Your task to perform on an android device: open the mobile data screen to see how much data has been used Image 0: 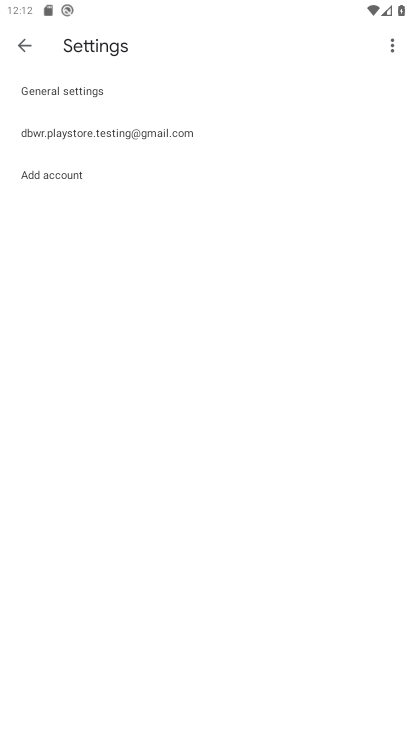
Step 0: press home button
Your task to perform on an android device: open the mobile data screen to see how much data has been used Image 1: 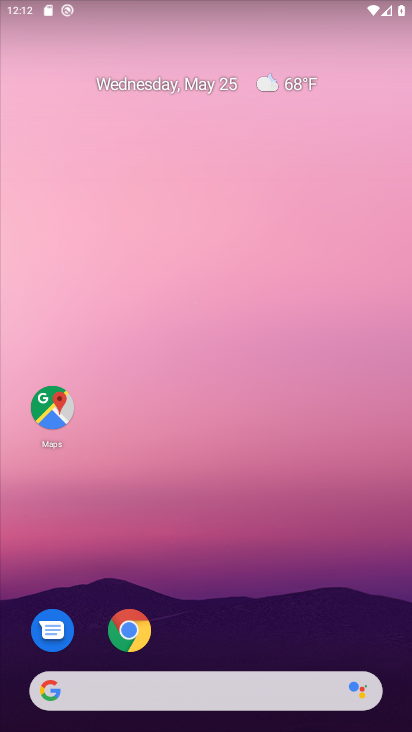
Step 1: drag from (235, 644) to (236, 212)
Your task to perform on an android device: open the mobile data screen to see how much data has been used Image 2: 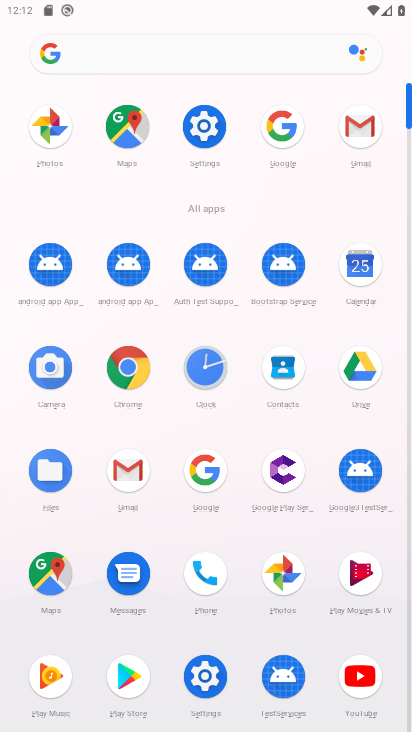
Step 2: click (198, 151)
Your task to perform on an android device: open the mobile data screen to see how much data has been used Image 3: 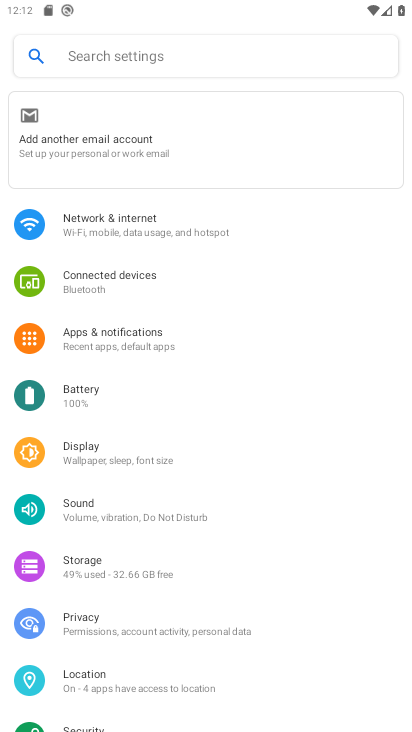
Step 3: click (170, 227)
Your task to perform on an android device: open the mobile data screen to see how much data has been used Image 4: 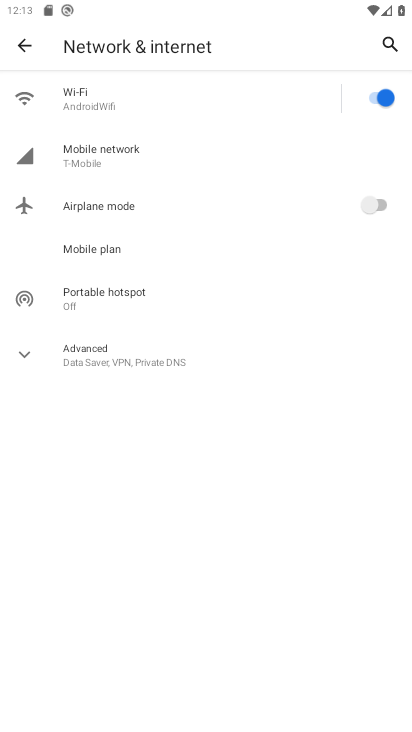
Step 4: click (170, 158)
Your task to perform on an android device: open the mobile data screen to see how much data has been used Image 5: 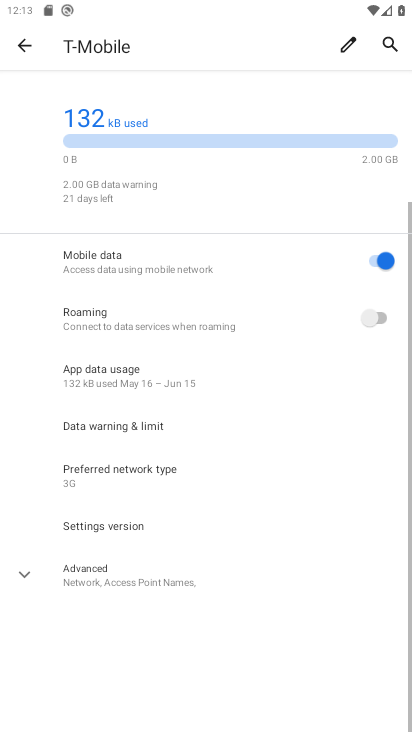
Step 5: click (170, 158)
Your task to perform on an android device: open the mobile data screen to see how much data has been used Image 6: 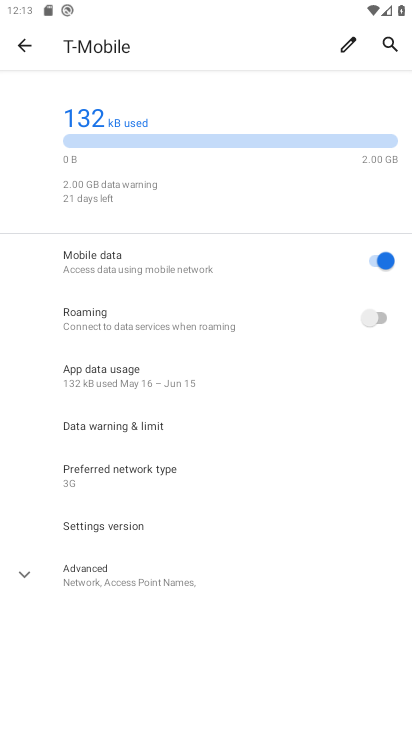
Step 6: click (217, 133)
Your task to perform on an android device: open the mobile data screen to see how much data has been used Image 7: 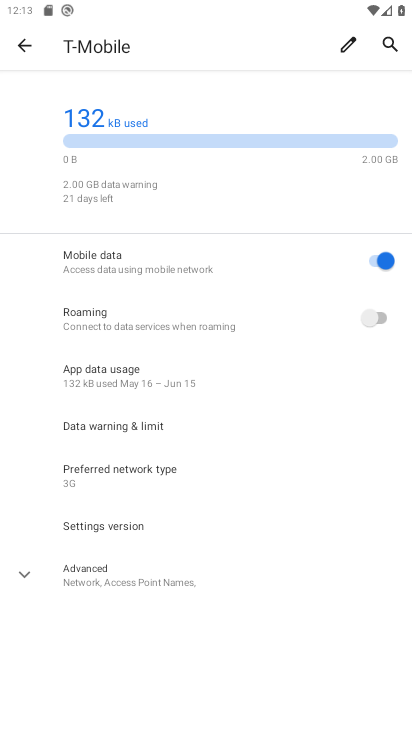
Step 7: task complete